Your task to perform on an android device: add a contact Image 0: 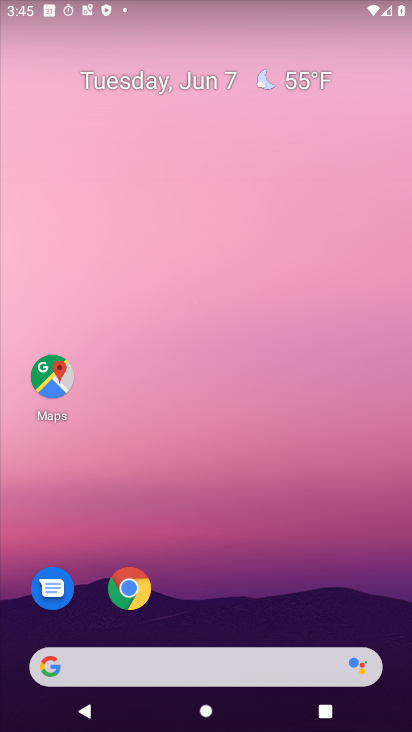
Step 0: drag from (248, 620) to (263, 42)
Your task to perform on an android device: add a contact Image 1: 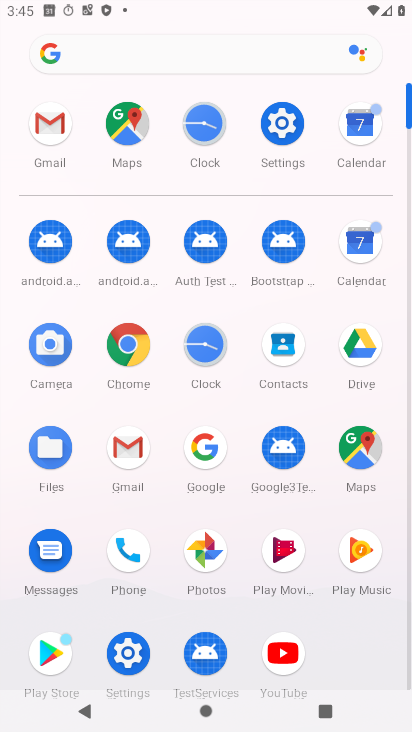
Step 1: click (285, 341)
Your task to perform on an android device: add a contact Image 2: 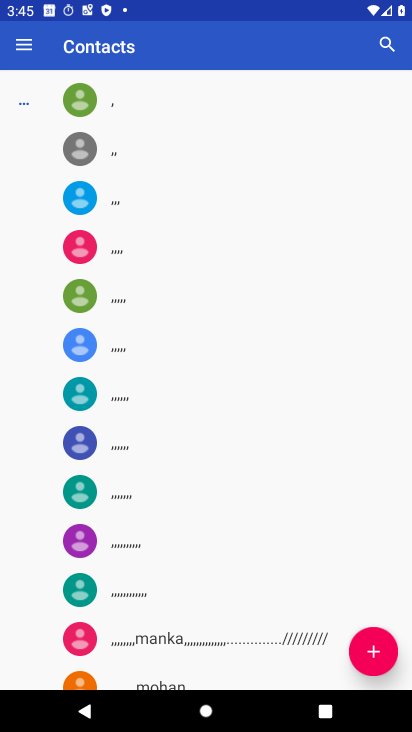
Step 2: click (374, 652)
Your task to perform on an android device: add a contact Image 3: 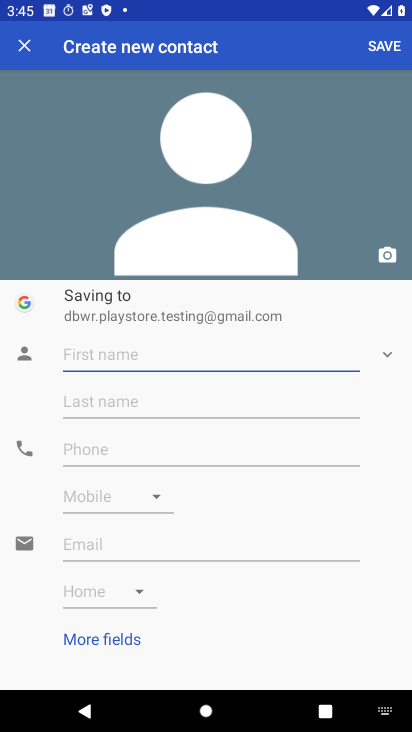
Step 3: type "gjghghgh"
Your task to perform on an android device: add a contact Image 4: 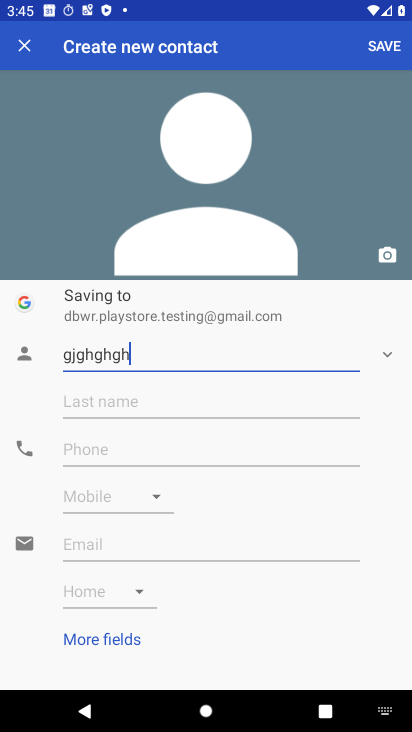
Step 4: click (137, 445)
Your task to perform on an android device: add a contact Image 5: 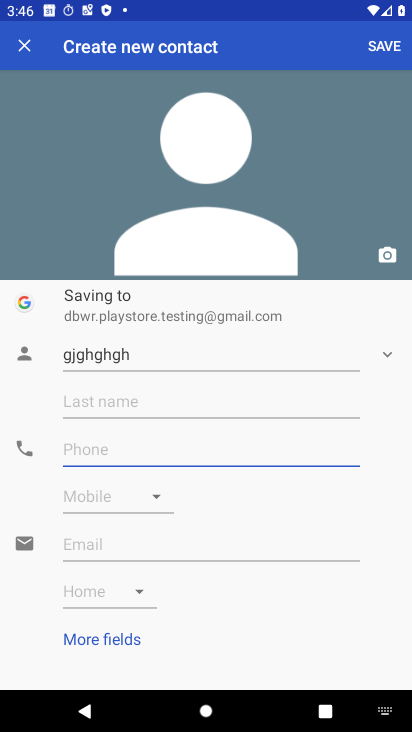
Step 5: type "777777"
Your task to perform on an android device: add a contact Image 6: 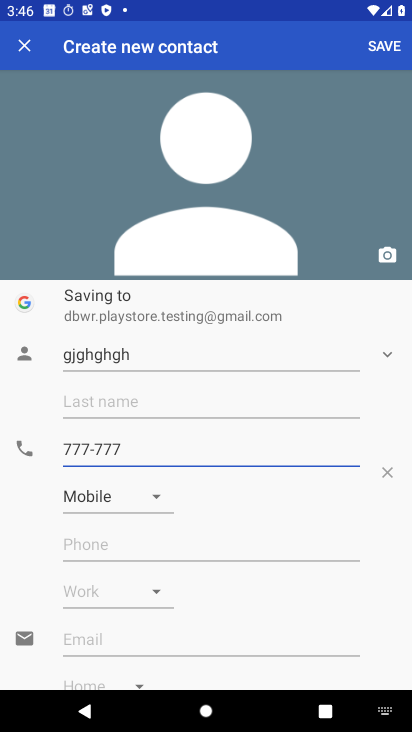
Step 6: click (381, 58)
Your task to perform on an android device: add a contact Image 7: 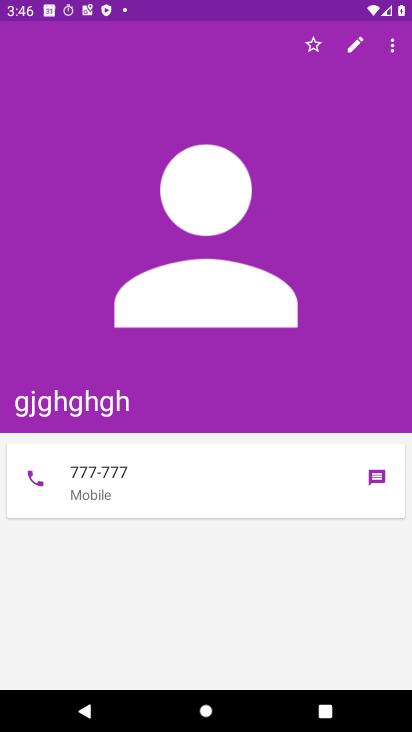
Step 7: task complete